Your task to perform on an android device: Open the phone app and click the voicemail tab. Image 0: 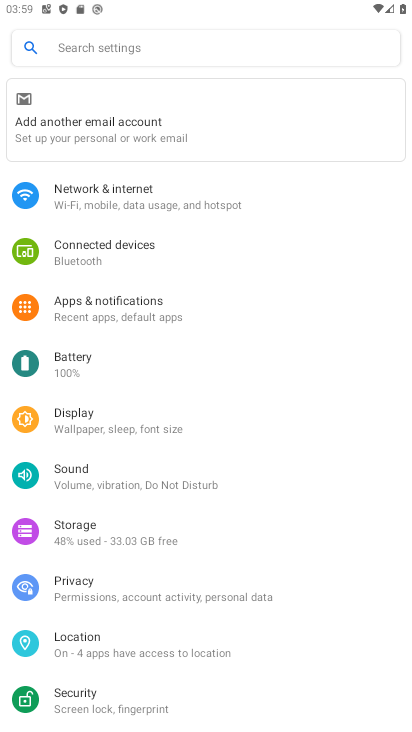
Step 0: press home button
Your task to perform on an android device: Open the phone app and click the voicemail tab. Image 1: 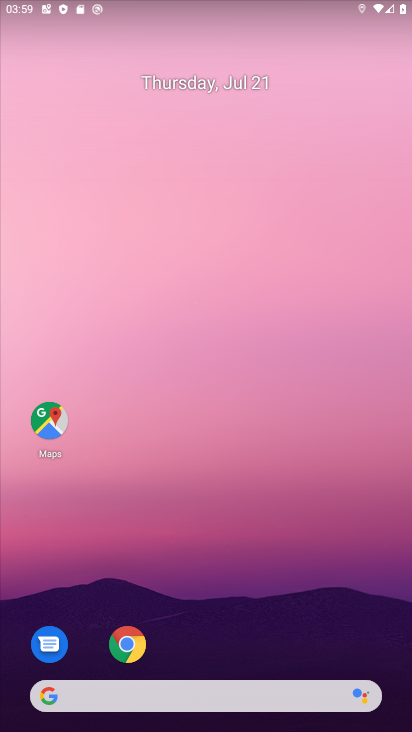
Step 1: drag from (251, 667) to (242, 7)
Your task to perform on an android device: Open the phone app and click the voicemail tab. Image 2: 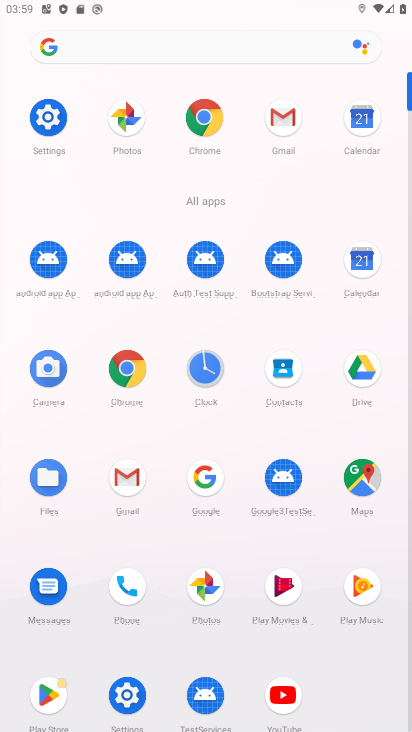
Step 2: click (120, 579)
Your task to perform on an android device: Open the phone app and click the voicemail tab. Image 3: 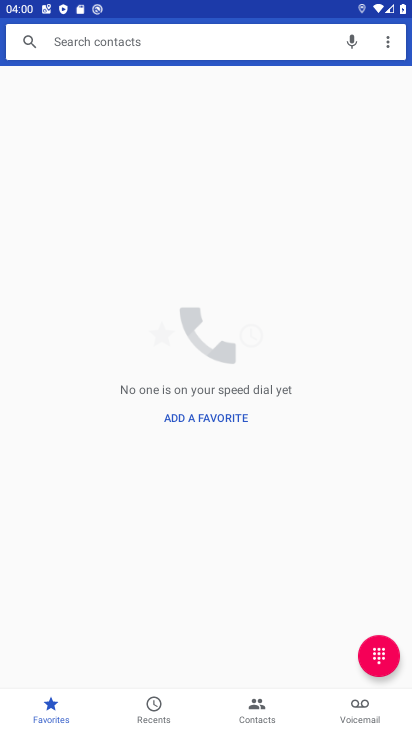
Step 3: click (358, 720)
Your task to perform on an android device: Open the phone app and click the voicemail tab. Image 4: 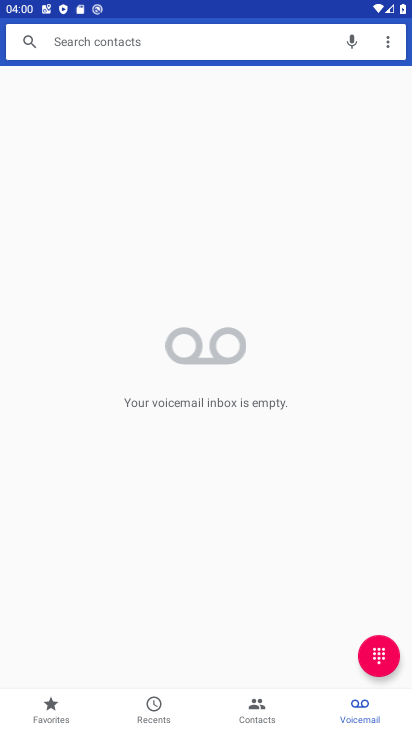
Step 4: task complete